Your task to perform on an android device: Go to network settings Image 0: 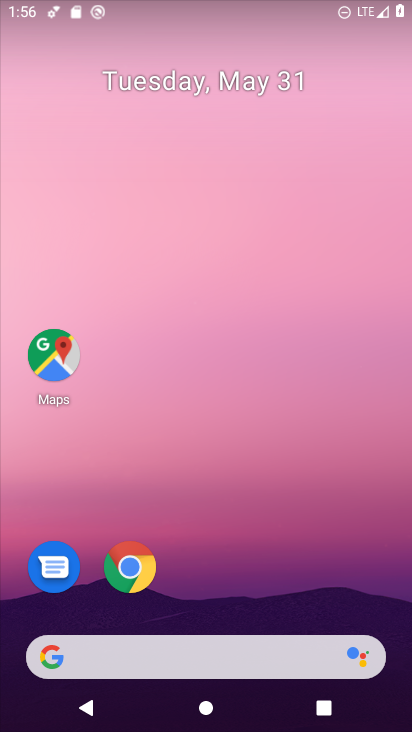
Step 0: drag from (221, 590) to (193, 148)
Your task to perform on an android device: Go to network settings Image 1: 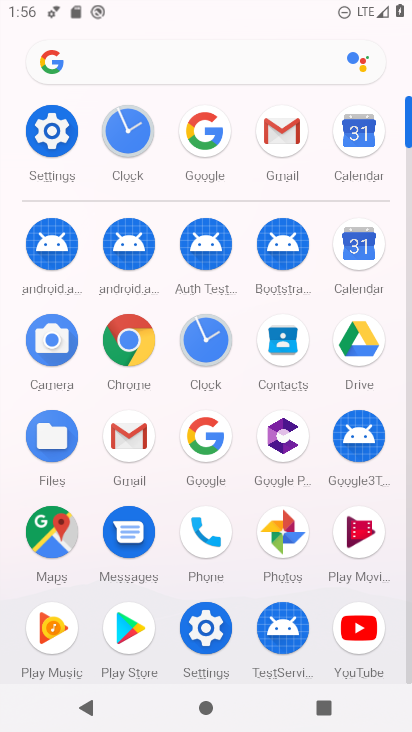
Step 1: click (48, 137)
Your task to perform on an android device: Go to network settings Image 2: 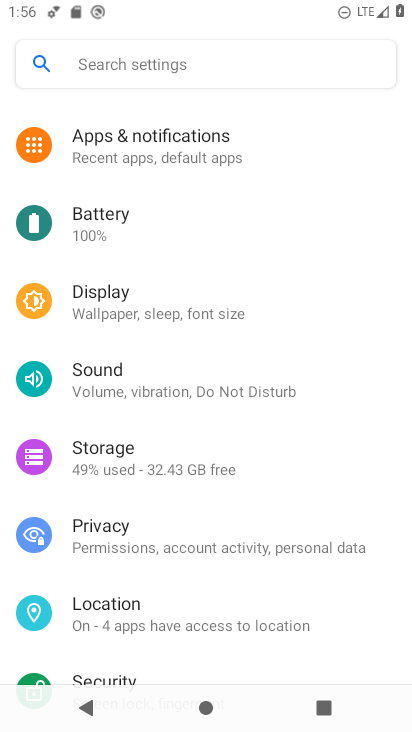
Step 2: drag from (191, 173) to (209, 559)
Your task to perform on an android device: Go to network settings Image 3: 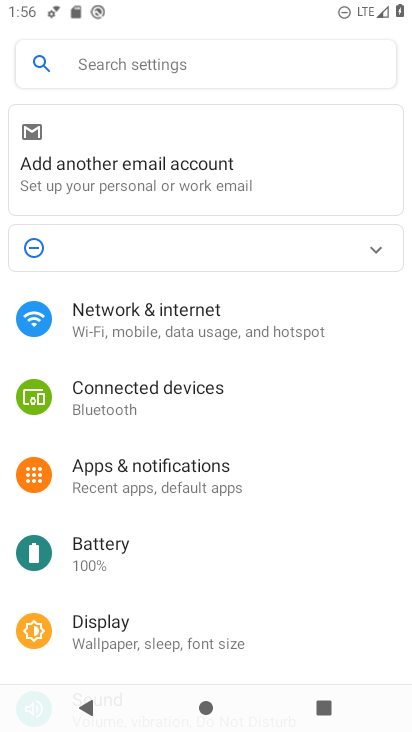
Step 3: click (187, 320)
Your task to perform on an android device: Go to network settings Image 4: 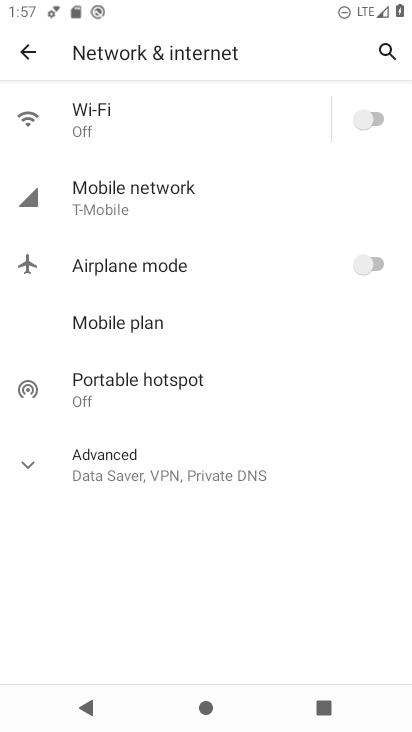
Step 4: click (124, 196)
Your task to perform on an android device: Go to network settings Image 5: 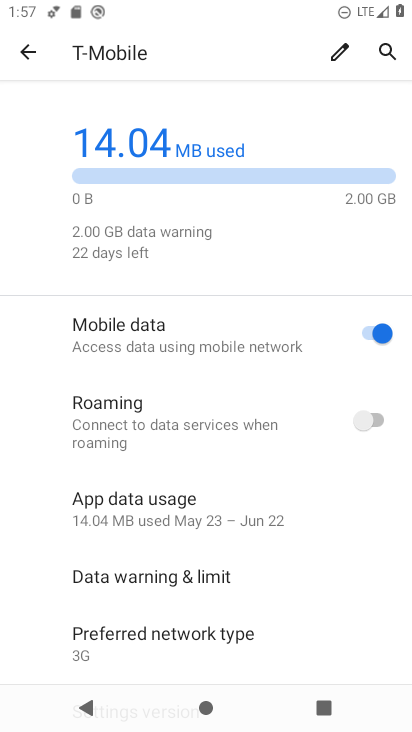
Step 5: task complete